Your task to perform on an android device: turn notification dots off Image 0: 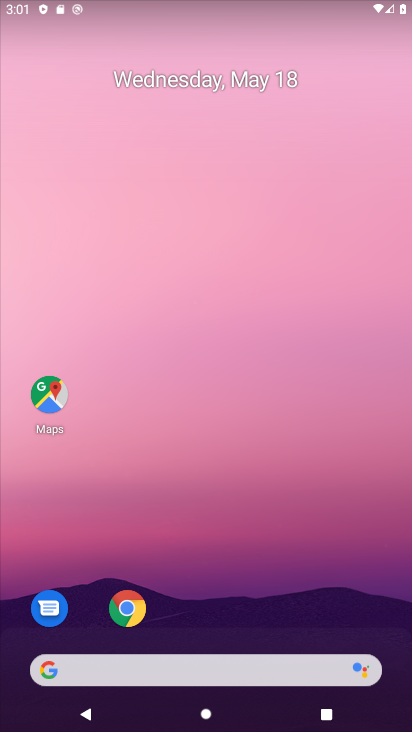
Step 0: drag from (192, 626) to (214, 164)
Your task to perform on an android device: turn notification dots off Image 1: 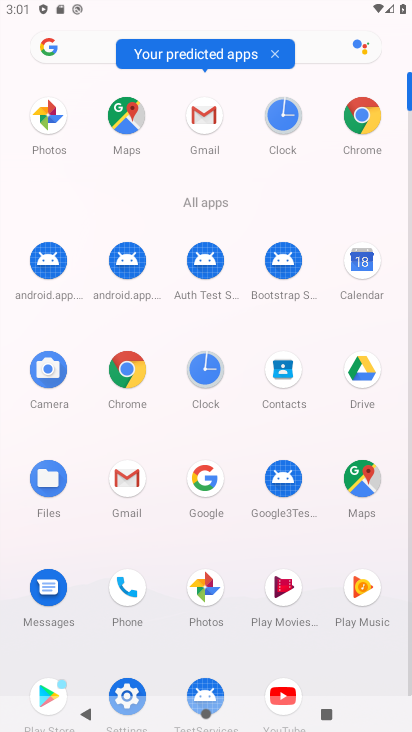
Step 1: click (126, 690)
Your task to perform on an android device: turn notification dots off Image 2: 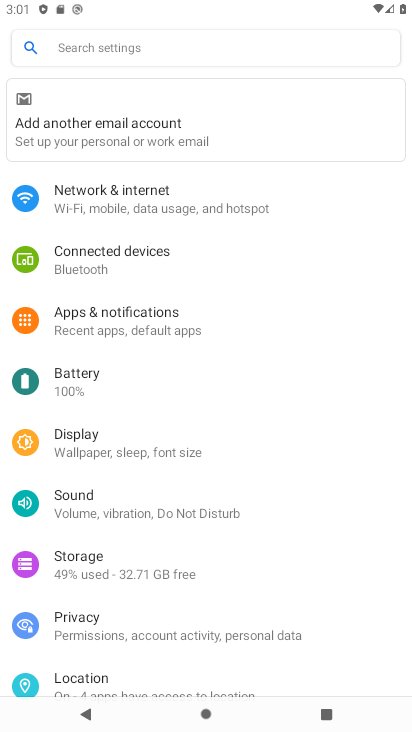
Step 2: click (117, 318)
Your task to perform on an android device: turn notification dots off Image 3: 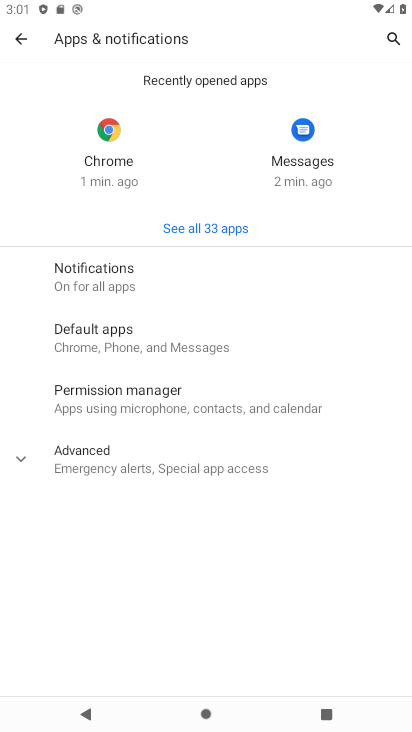
Step 3: click (98, 282)
Your task to perform on an android device: turn notification dots off Image 4: 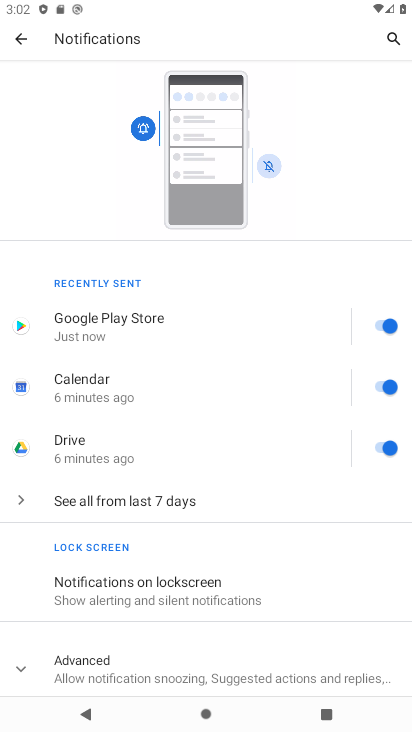
Step 4: click (180, 657)
Your task to perform on an android device: turn notification dots off Image 5: 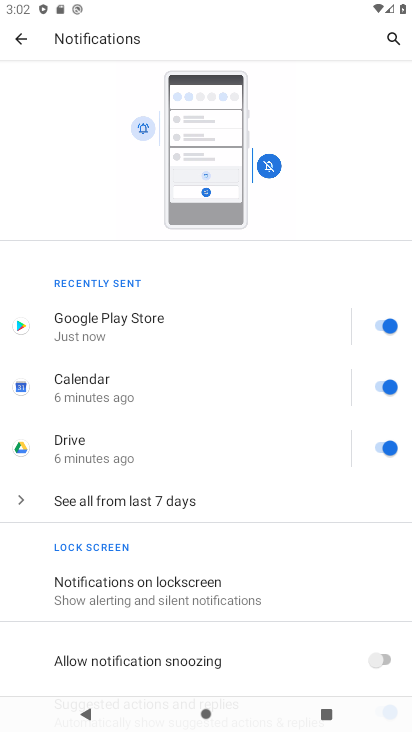
Step 5: drag from (150, 642) to (161, 196)
Your task to perform on an android device: turn notification dots off Image 6: 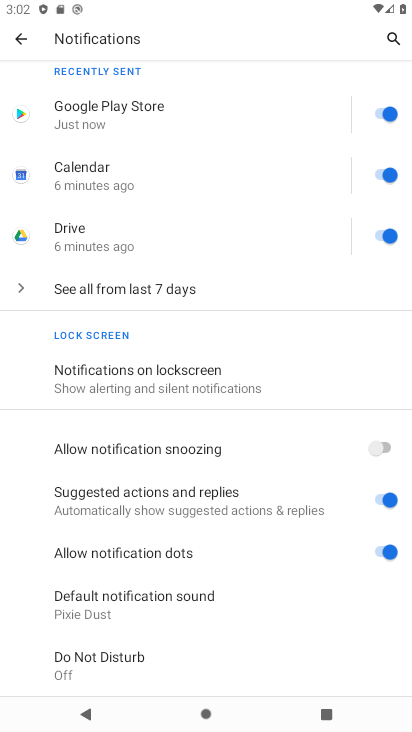
Step 6: click (386, 551)
Your task to perform on an android device: turn notification dots off Image 7: 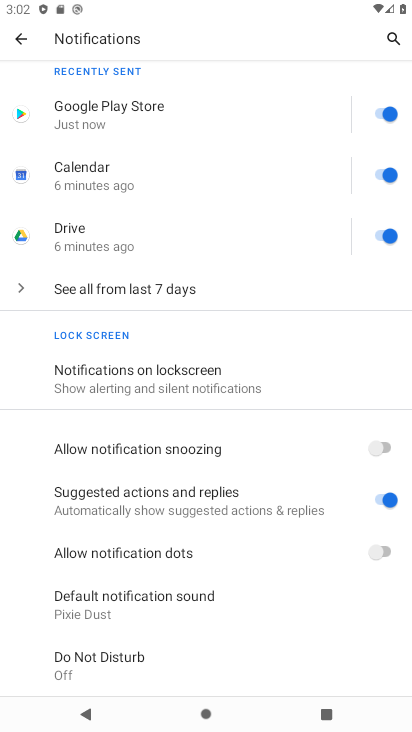
Step 7: task complete